Your task to perform on an android device: turn off airplane mode Image 0: 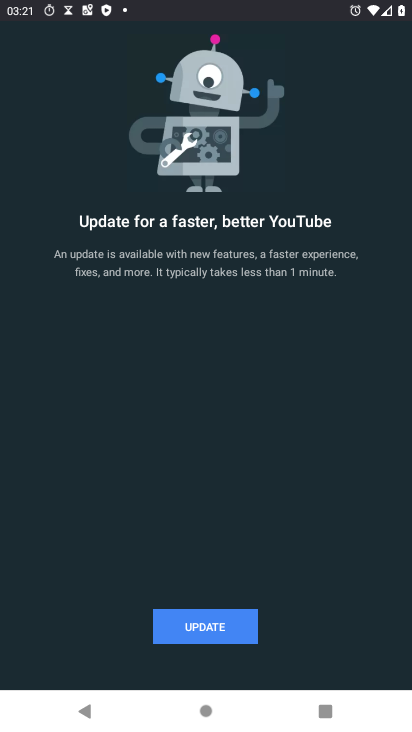
Step 0: press home button
Your task to perform on an android device: turn off airplane mode Image 1: 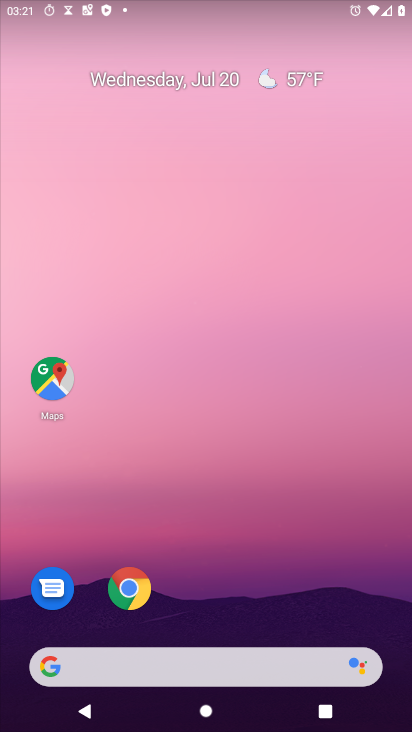
Step 1: drag from (164, 666) to (132, 3)
Your task to perform on an android device: turn off airplane mode Image 2: 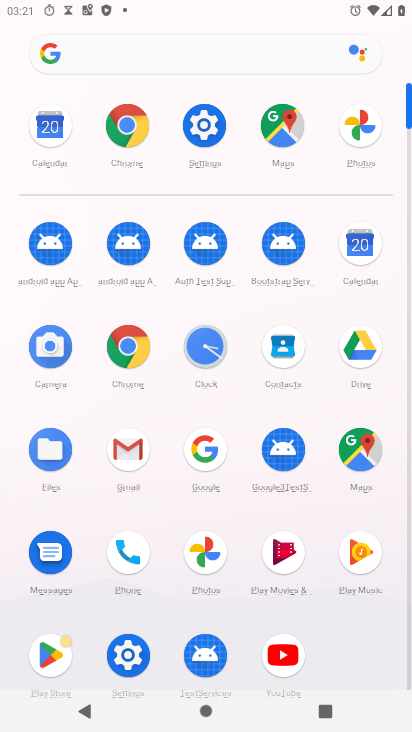
Step 2: click (214, 117)
Your task to perform on an android device: turn off airplane mode Image 3: 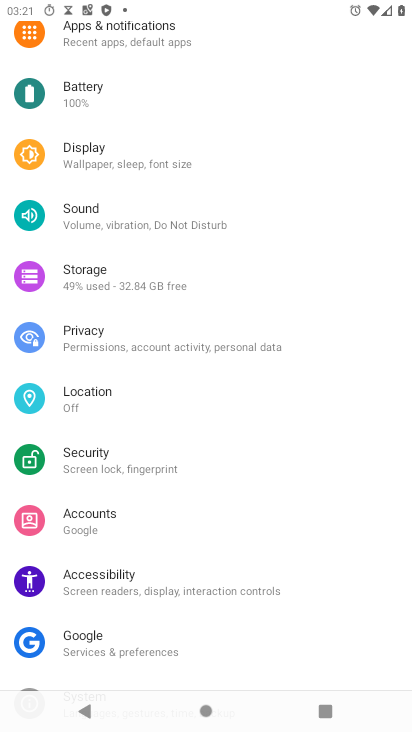
Step 3: drag from (151, 171) to (101, 673)
Your task to perform on an android device: turn off airplane mode Image 4: 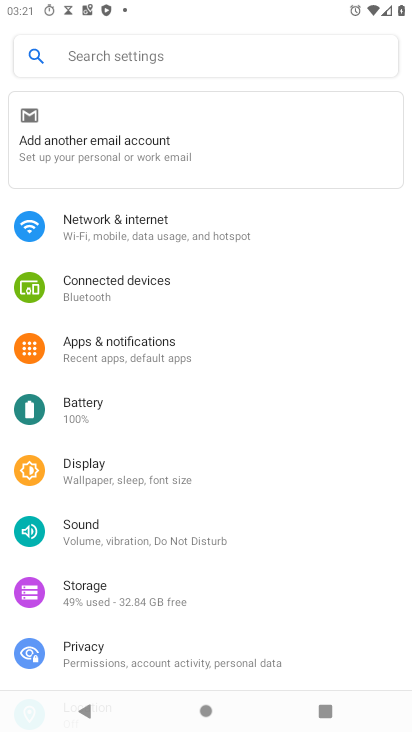
Step 4: click (191, 229)
Your task to perform on an android device: turn off airplane mode Image 5: 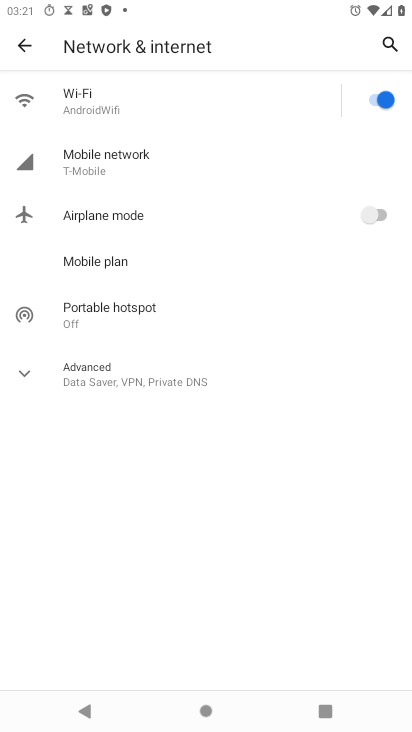
Step 5: task complete